Your task to perform on an android device: Toggle the flashlight Image 0: 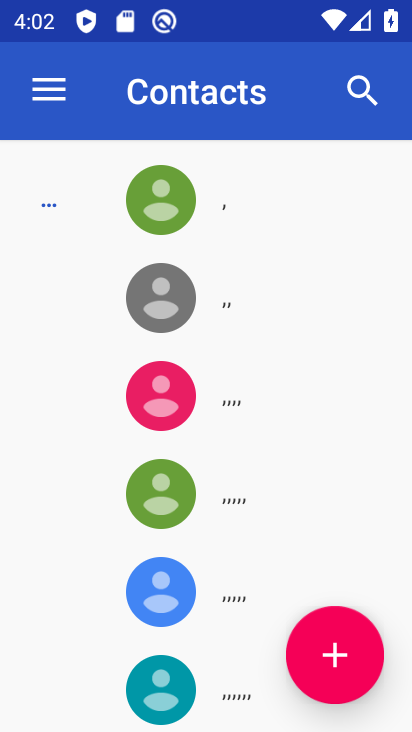
Step 0: press home button
Your task to perform on an android device: Toggle the flashlight Image 1: 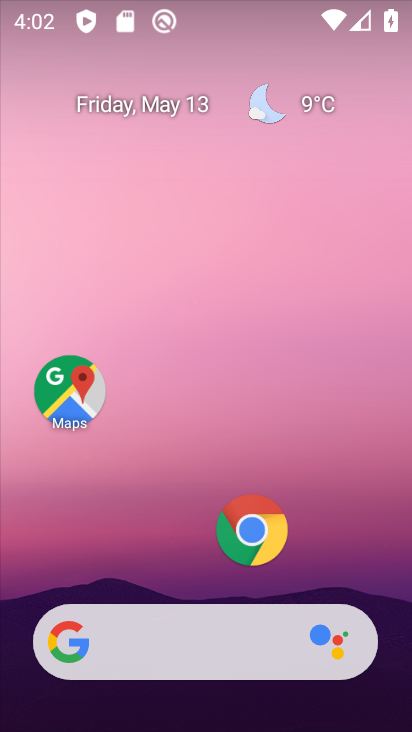
Step 1: drag from (187, 563) to (225, 21)
Your task to perform on an android device: Toggle the flashlight Image 2: 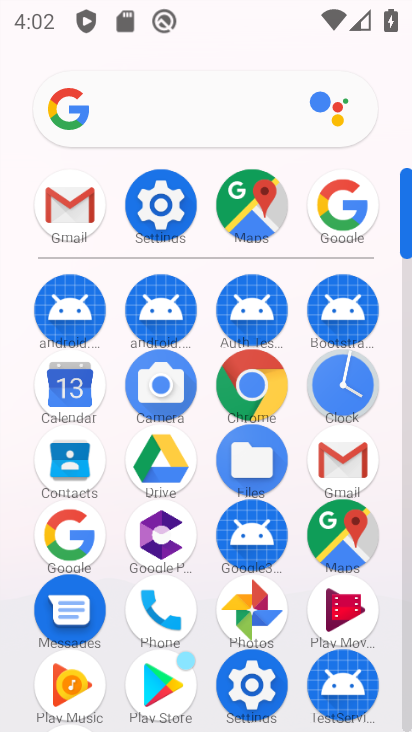
Step 2: click (157, 201)
Your task to perform on an android device: Toggle the flashlight Image 3: 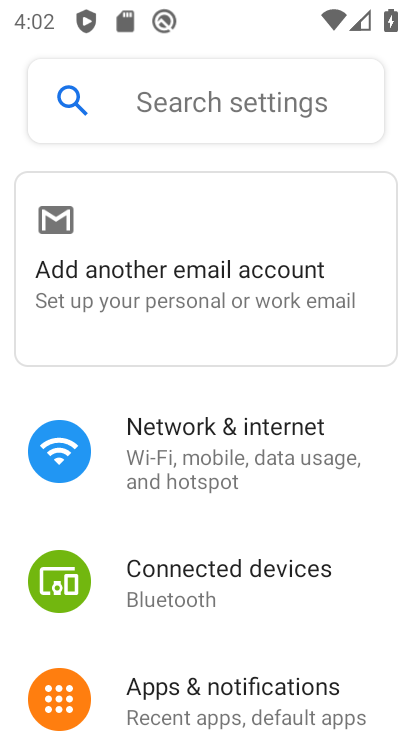
Step 3: click (178, 110)
Your task to perform on an android device: Toggle the flashlight Image 4: 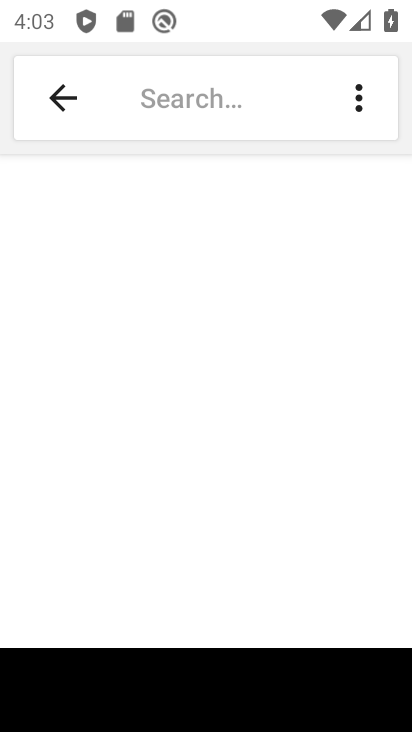
Step 4: type "flashlight"
Your task to perform on an android device: Toggle the flashlight Image 5: 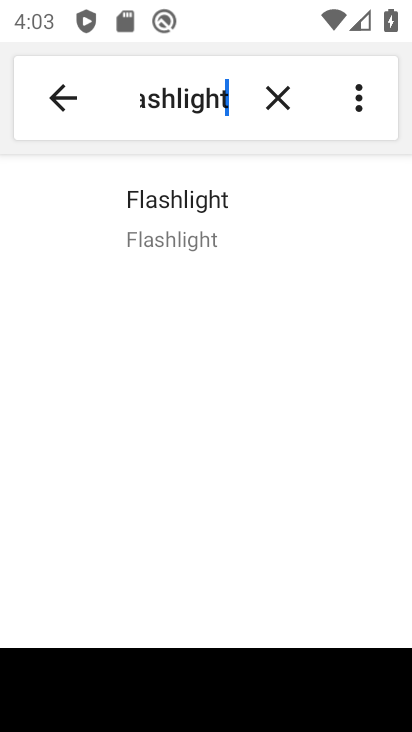
Step 5: click (180, 220)
Your task to perform on an android device: Toggle the flashlight Image 6: 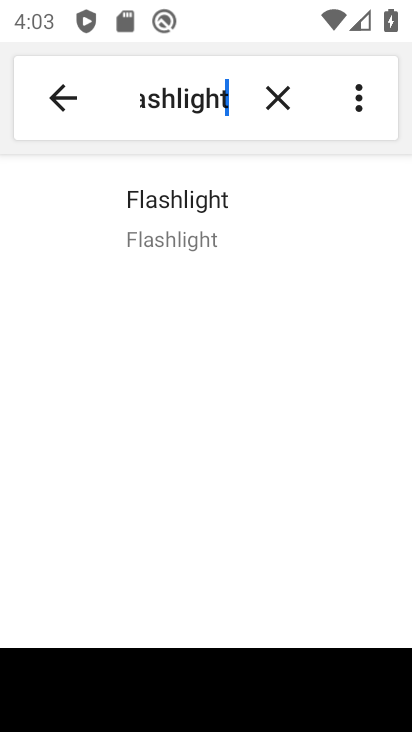
Step 6: task complete